Your task to perform on an android device: Open the calendar and show me this week's events? Image 0: 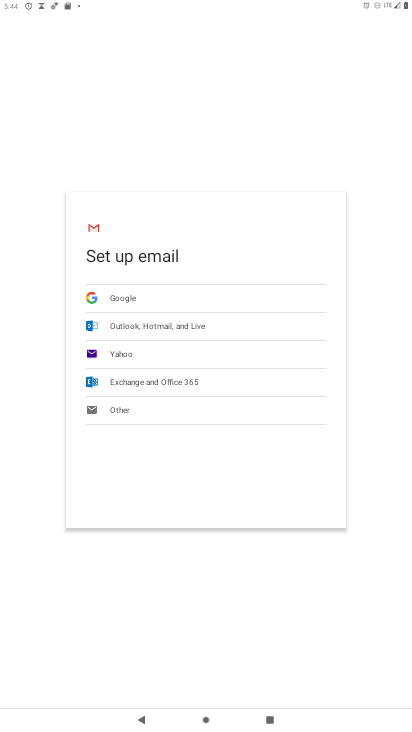
Step 0: press home button
Your task to perform on an android device: Open the calendar and show me this week's events? Image 1: 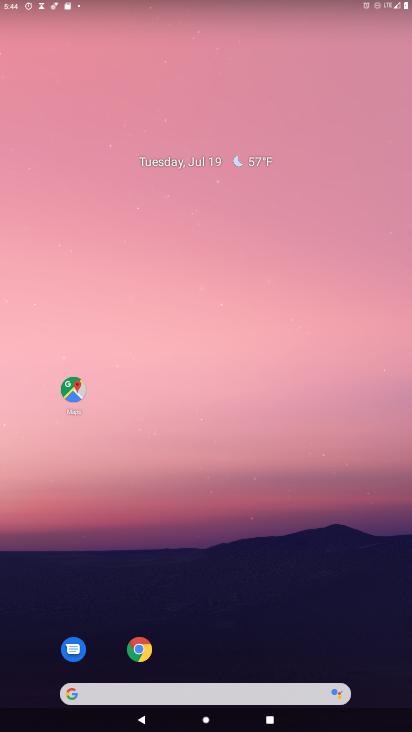
Step 1: drag from (189, 634) to (239, 144)
Your task to perform on an android device: Open the calendar and show me this week's events? Image 2: 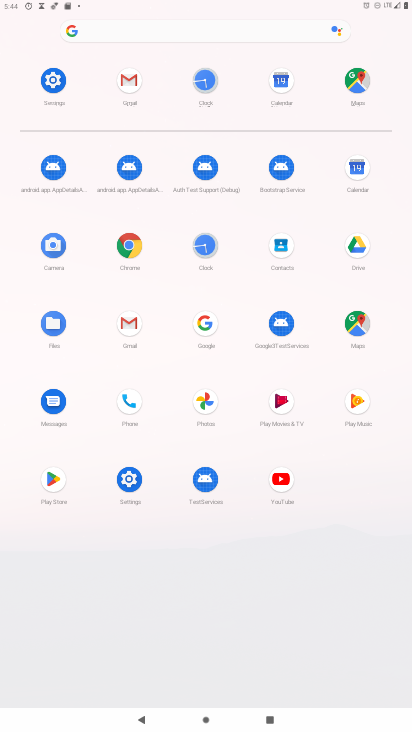
Step 2: click (356, 164)
Your task to perform on an android device: Open the calendar and show me this week's events? Image 3: 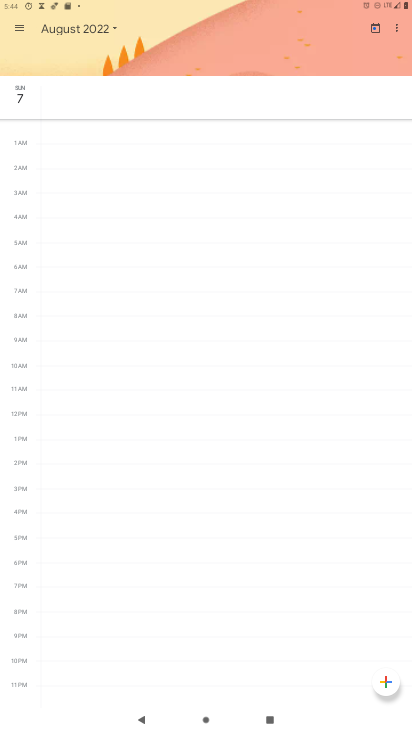
Step 3: click (65, 32)
Your task to perform on an android device: Open the calendar and show me this week's events? Image 4: 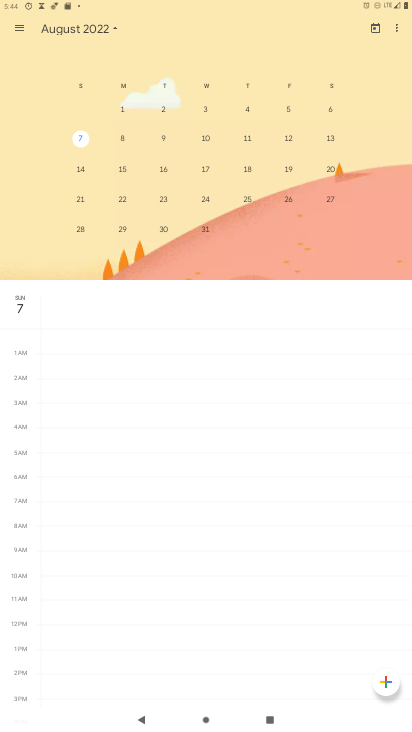
Step 4: drag from (136, 138) to (389, 143)
Your task to perform on an android device: Open the calendar and show me this week's events? Image 5: 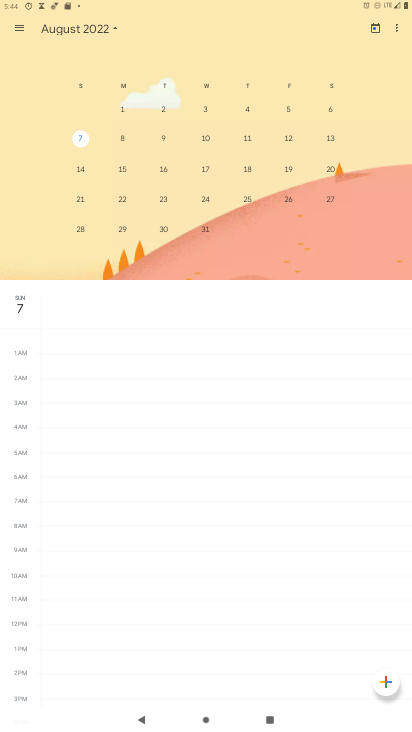
Step 5: drag from (101, 169) to (368, 131)
Your task to perform on an android device: Open the calendar and show me this week's events? Image 6: 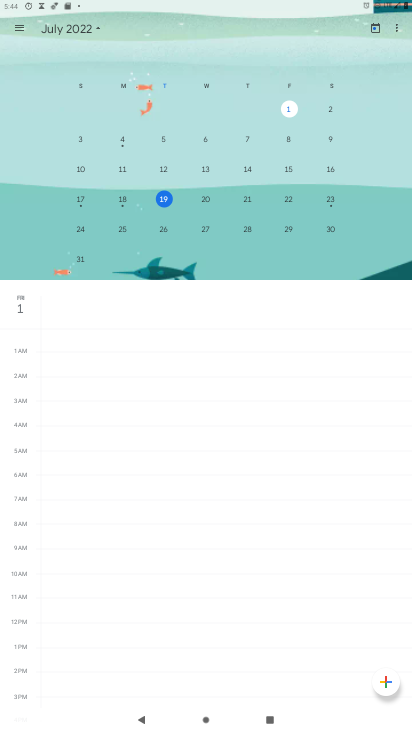
Step 6: click (80, 200)
Your task to perform on an android device: Open the calendar and show me this week's events? Image 7: 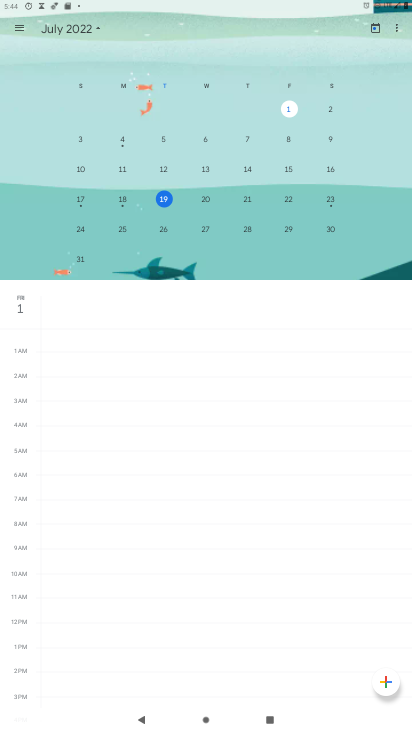
Step 7: click (80, 200)
Your task to perform on an android device: Open the calendar and show me this week's events? Image 8: 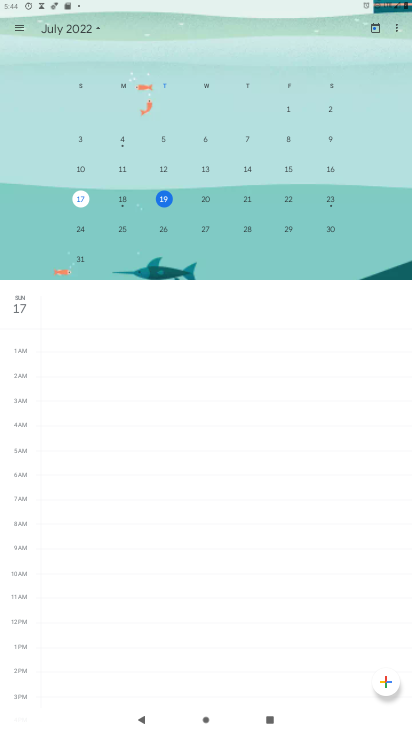
Step 8: click (16, 32)
Your task to perform on an android device: Open the calendar and show me this week's events? Image 9: 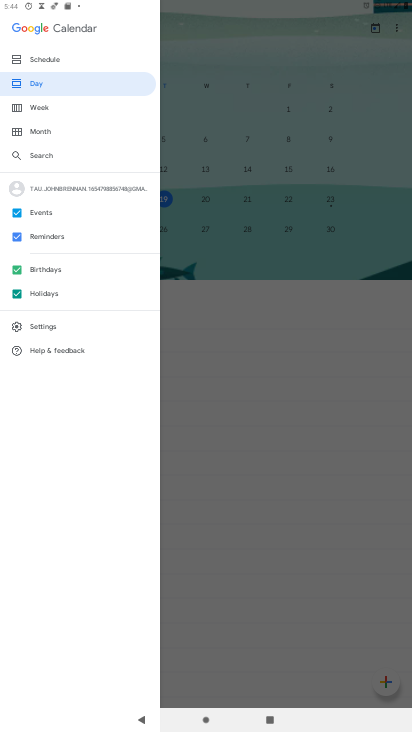
Step 9: click (46, 117)
Your task to perform on an android device: Open the calendar and show me this week's events? Image 10: 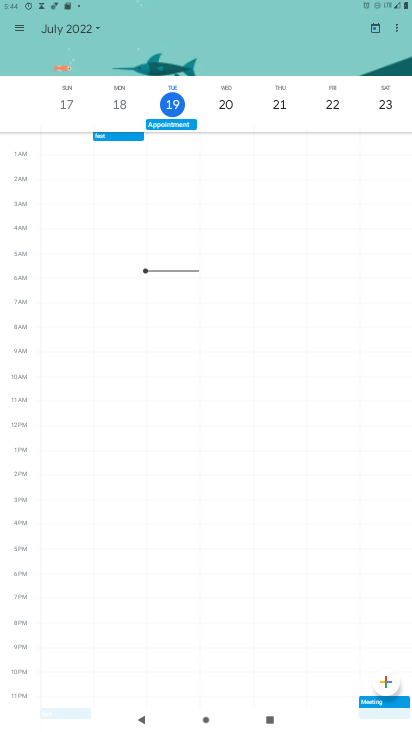
Step 10: task complete